Your task to perform on an android device: Open my contact list Image 0: 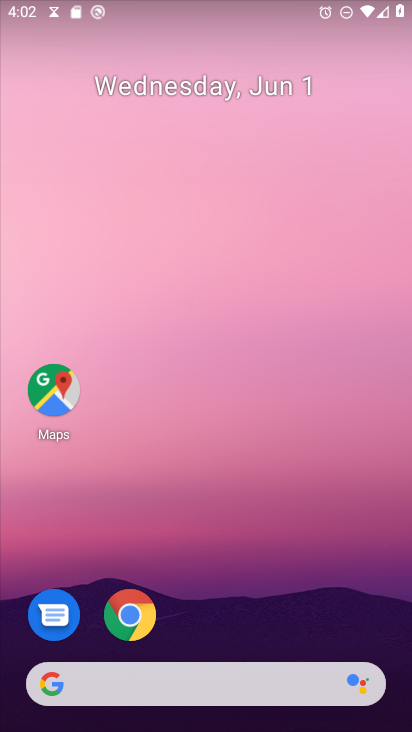
Step 0: press home button
Your task to perform on an android device: Open my contact list Image 1: 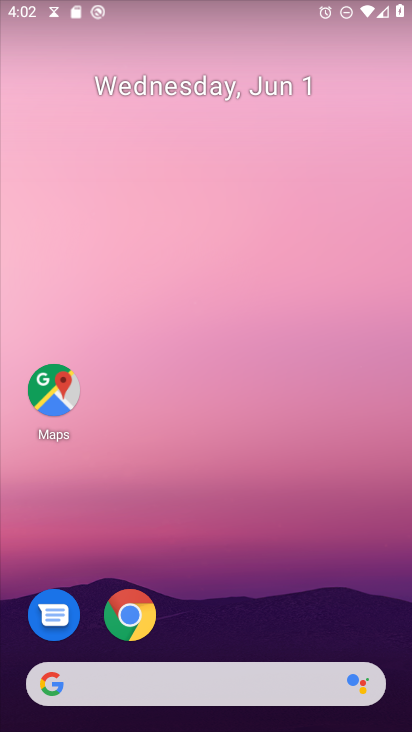
Step 1: drag from (204, 638) to (267, 105)
Your task to perform on an android device: Open my contact list Image 2: 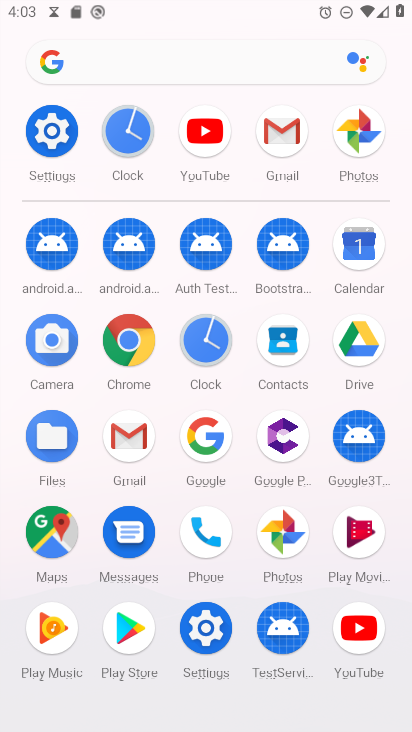
Step 2: click (281, 339)
Your task to perform on an android device: Open my contact list Image 3: 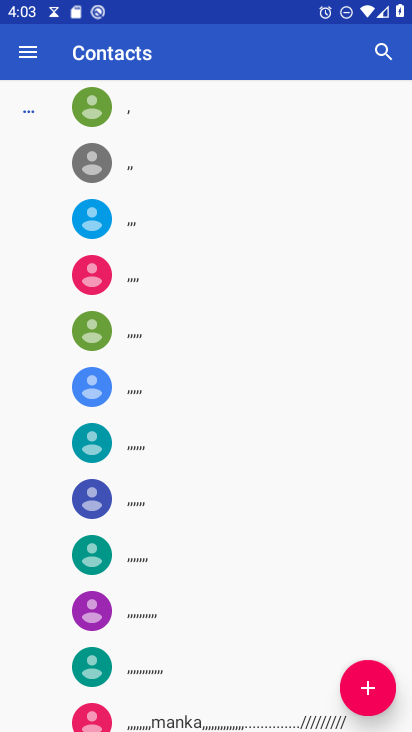
Step 3: task complete